Your task to perform on an android device: Open Google Image 0: 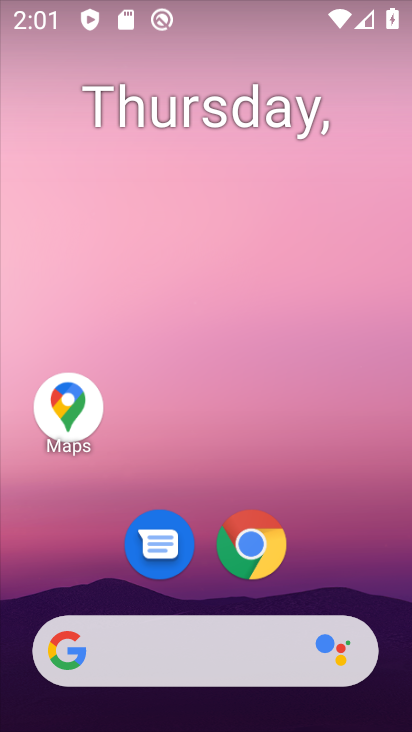
Step 0: drag from (276, 453) to (249, 162)
Your task to perform on an android device: Open Google Image 1: 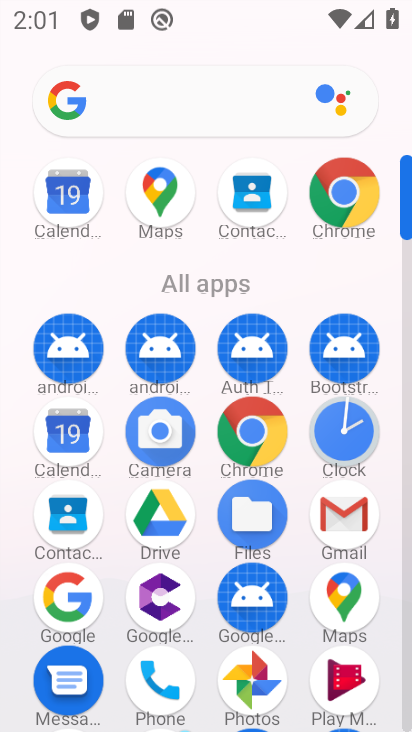
Step 1: click (73, 600)
Your task to perform on an android device: Open Google Image 2: 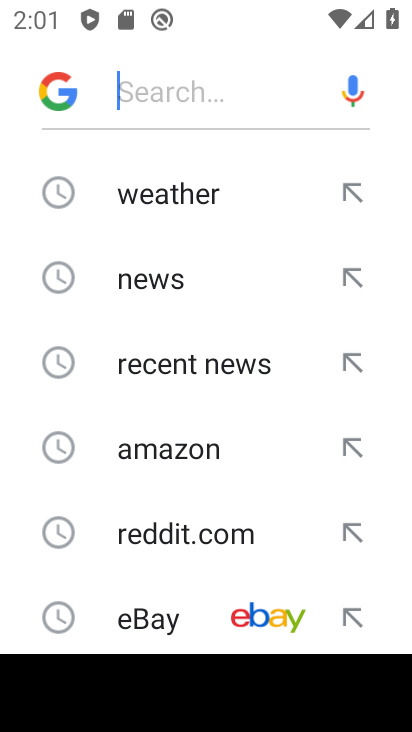
Step 2: task complete